Your task to perform on an android device: Search for sushi restaurants on Maps Image 0: 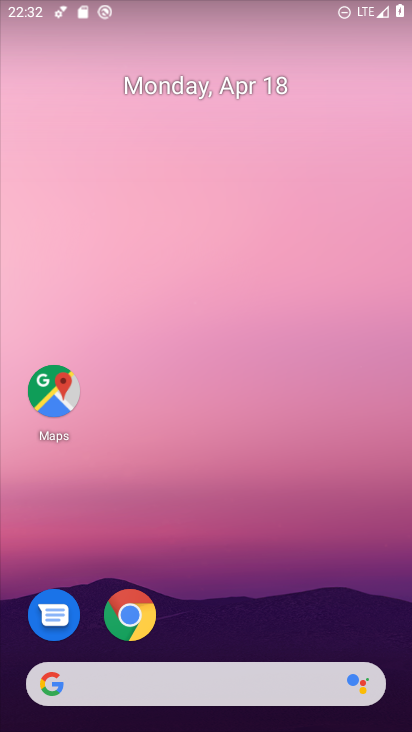
Step 0: click (52, 392)
Your task to perform on an android device: Search for sushi restaurants on Maps Image 1: 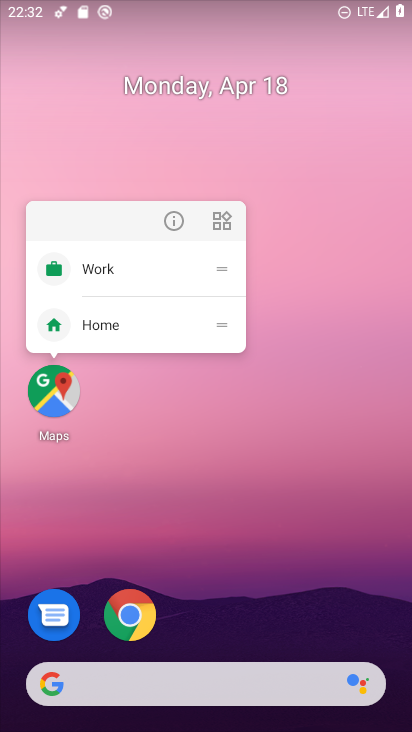
Step 1: click (51, 391)
Your task to perform on an android device: Search for sushi restaurants on Maps Image 2: 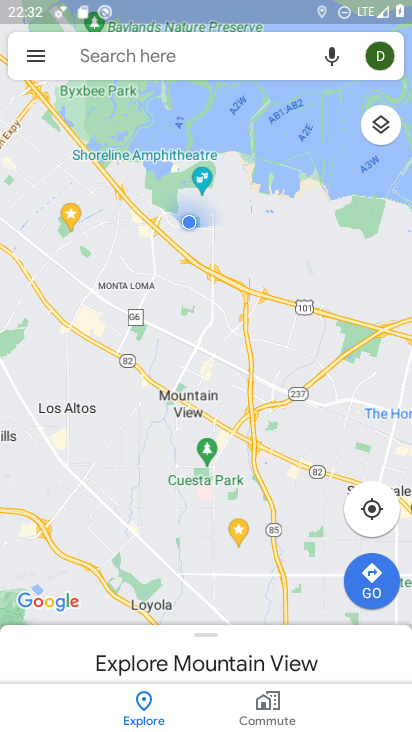
Step 2: click (168, 50)
Your task to perform on an android device: Search for sushi restaurants on Maps Image 3: 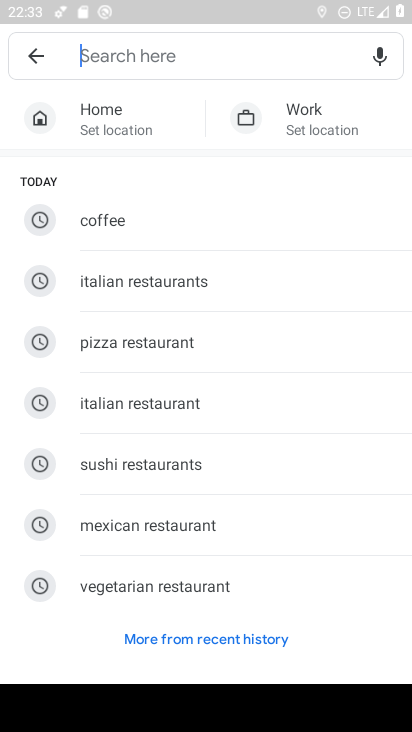
Step 3: type "sushi restaurant "
Your task to perform on an android device: Search for sushi restaurants on Maps Image 4: 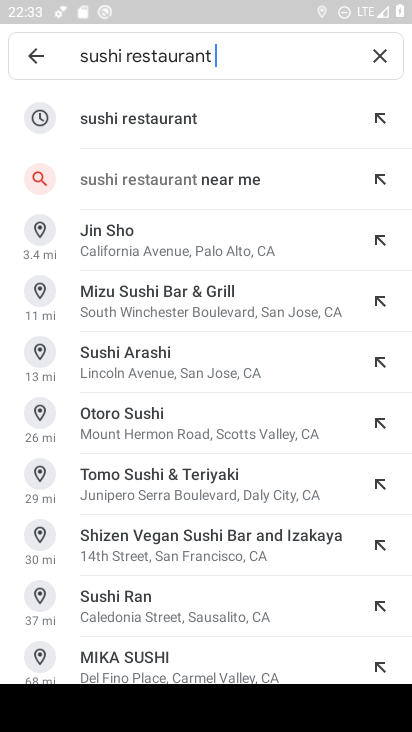
Step 4: click (141, 124)
Your task to perform on an android device: Search for sushi restaurants on Maps Image 5: 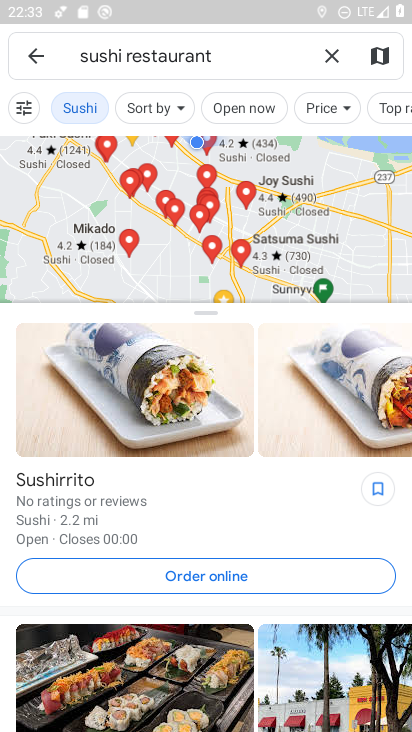
Step 5: task complete